Your task to perform on an android device: Go to Android settings Image 0: 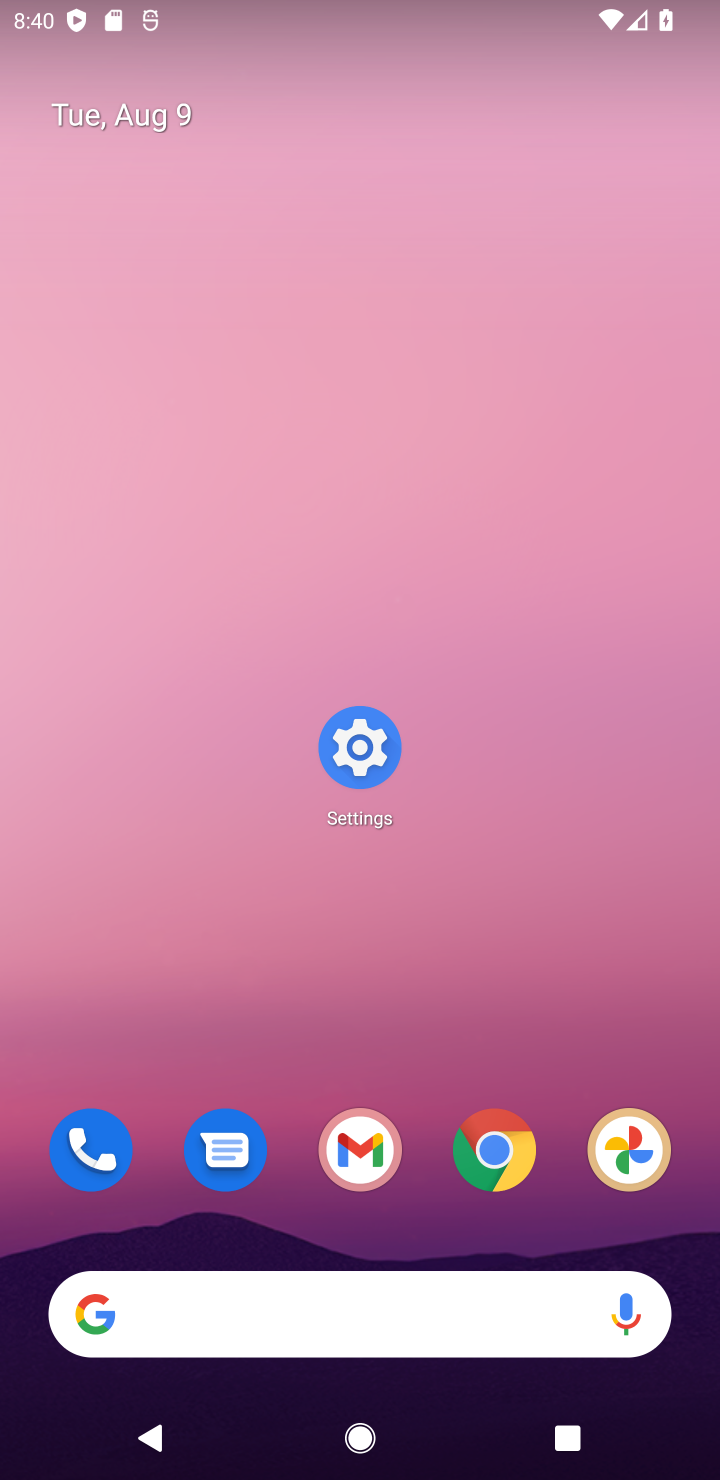
Step 0: click (352, 743)
Your task to perform on an android device: Go to Android settings Image 1: 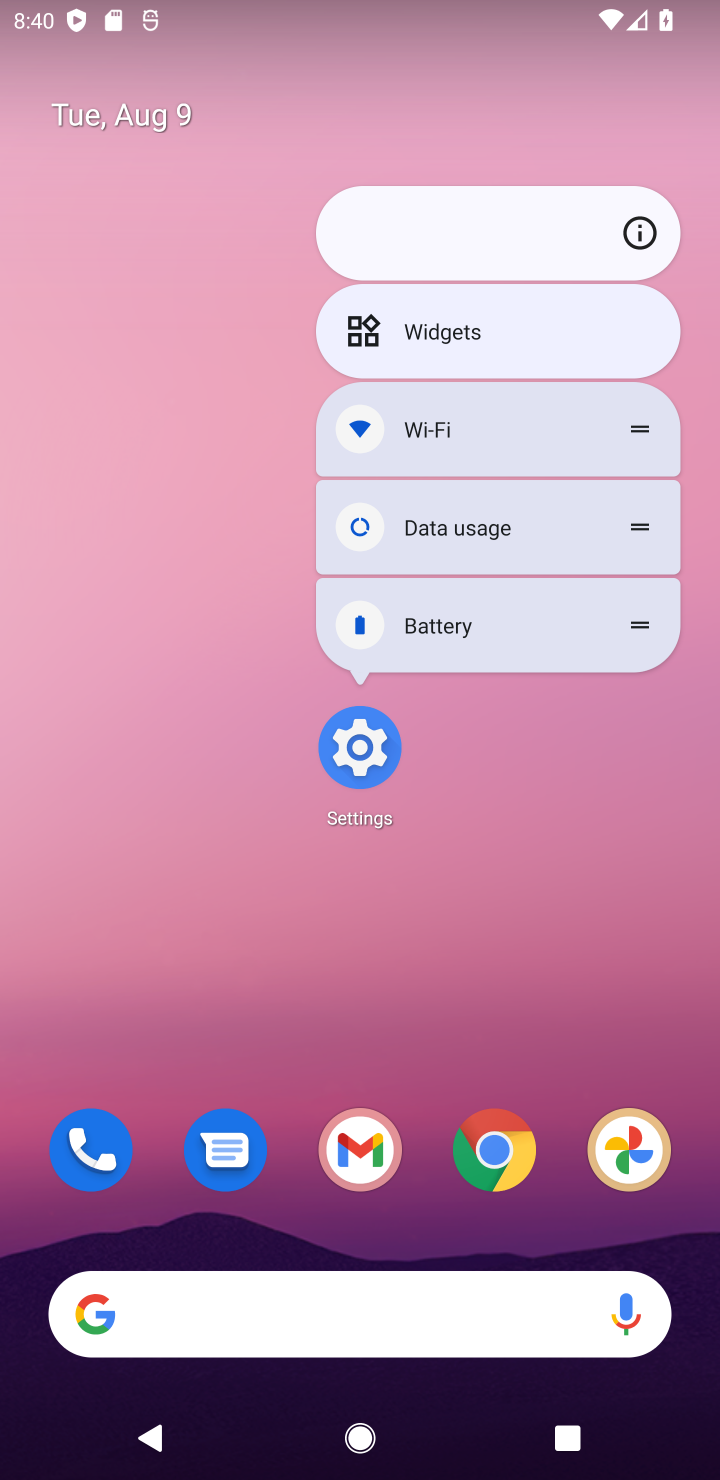
Step 1: click (358, 739)
Your task to perform on an android device: Go to Android settings Image 2: 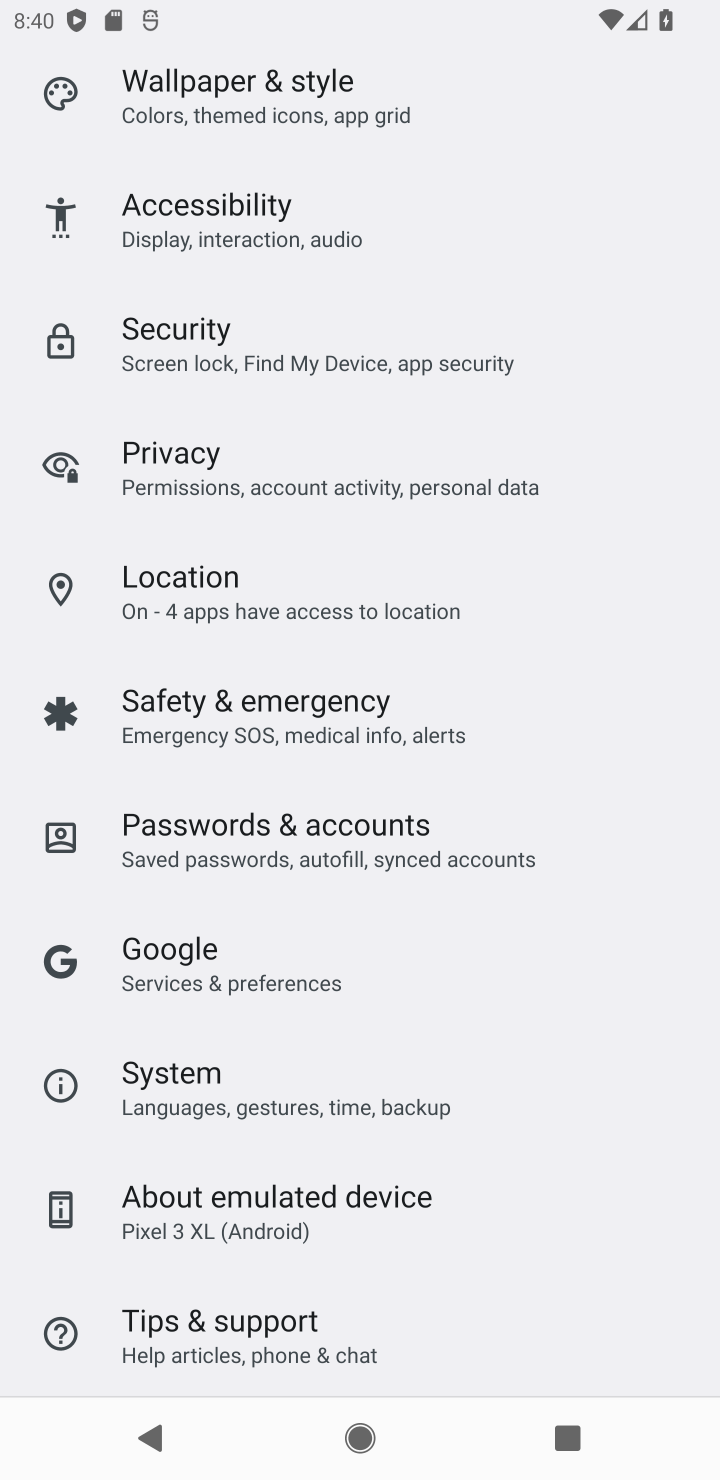
Step 2: task complete